Your task to perform on an android device: Open privacy settings Image 0: 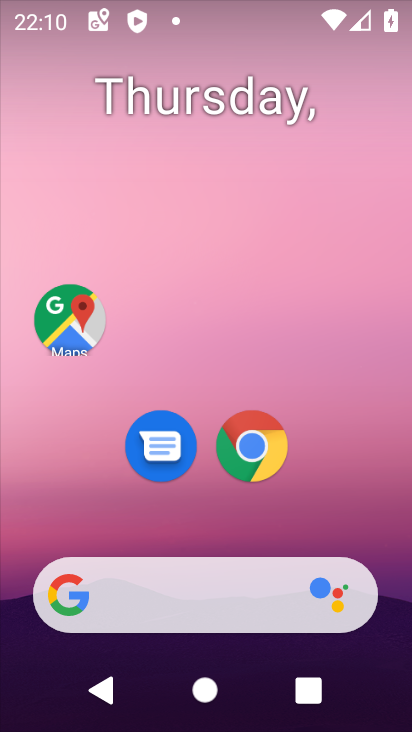
Step 0: drag from (382, 507) to (345, 100)
Your task to perform on an android device: Open privacy settings Image 1: 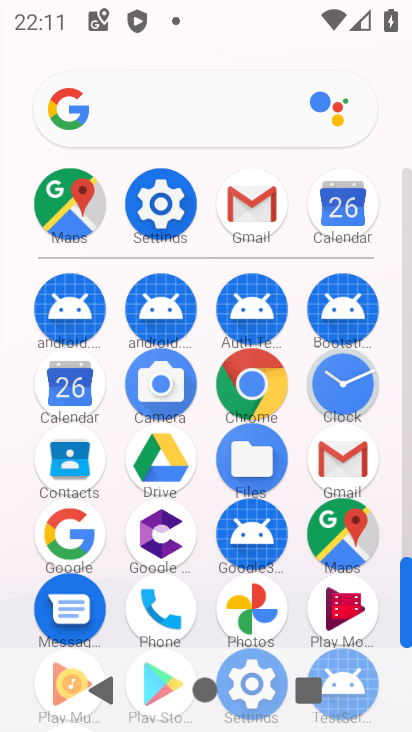
Step 1: click (164, 235)
Your task to perform on an android device: Open privacy settings Image 2: 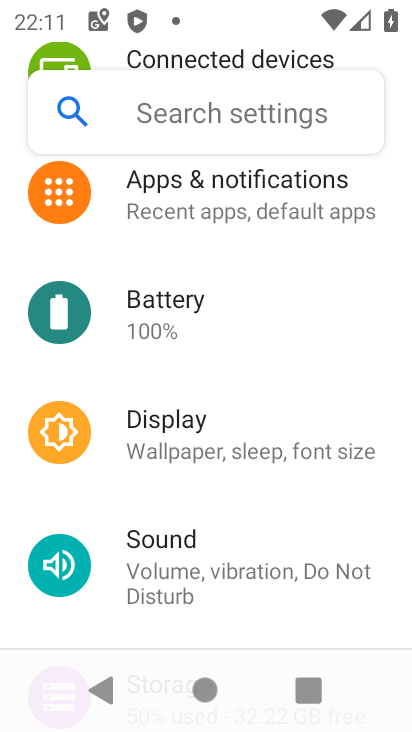
Step 2: drag from (169, 516) to (174, 136)
Your task to perform on an android device: Open privacy settings Image 3: 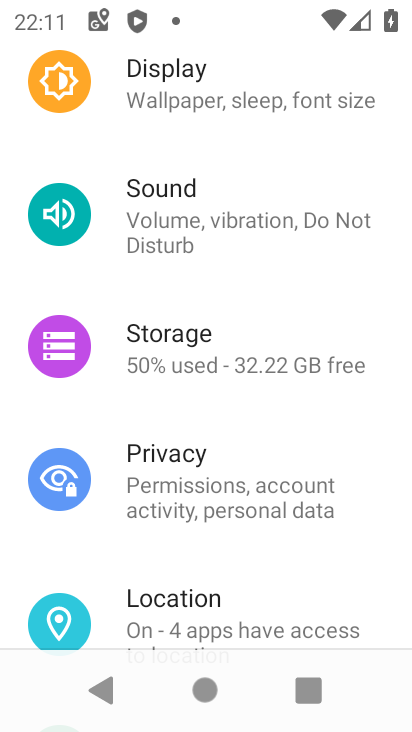
Step 3: click (174, 457)
Your task to perform on an android device: Open privacy settings Image 4: 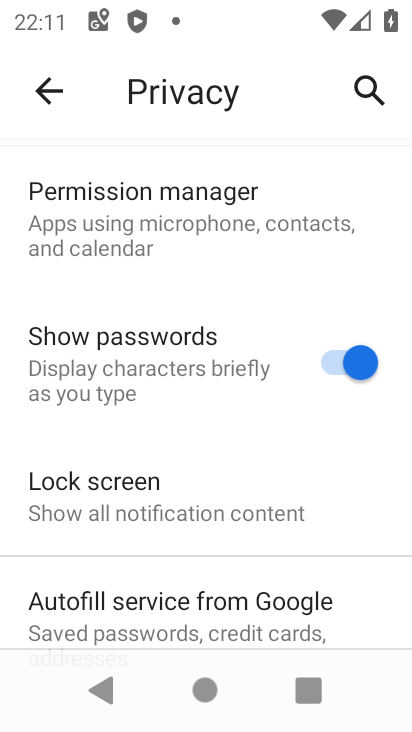
Step 4: task complete